Your task to perform on an android device: turn on translation in the chrome app Image 0: 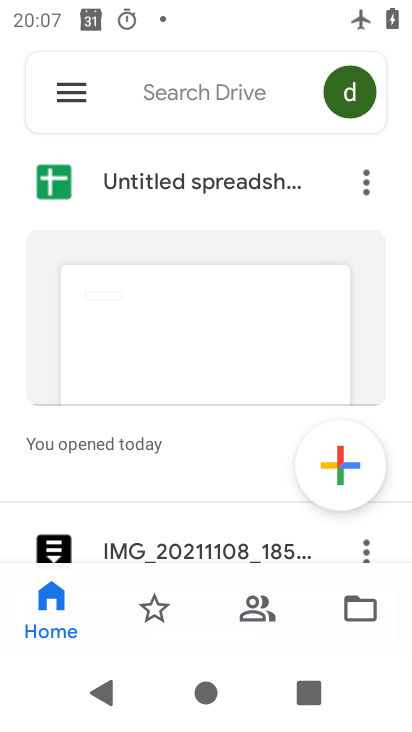
Step 0: press home button
Your task to perform on an android device: turn on translation in the chrome app Image 1: 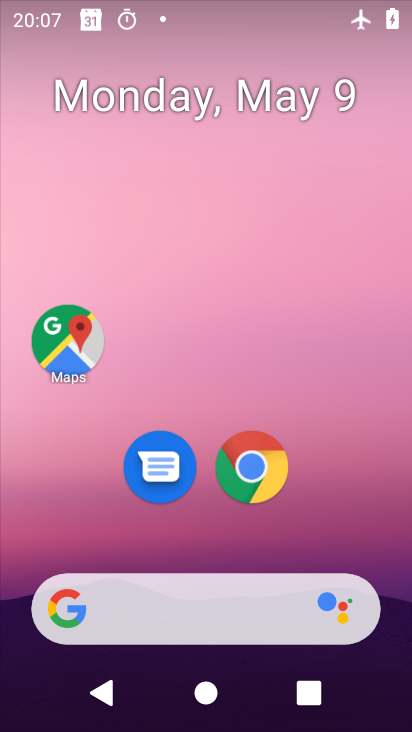
Step 1: click (252, 466)
Your task to perform on an android device: turn on translation in the chrome app Image 2: 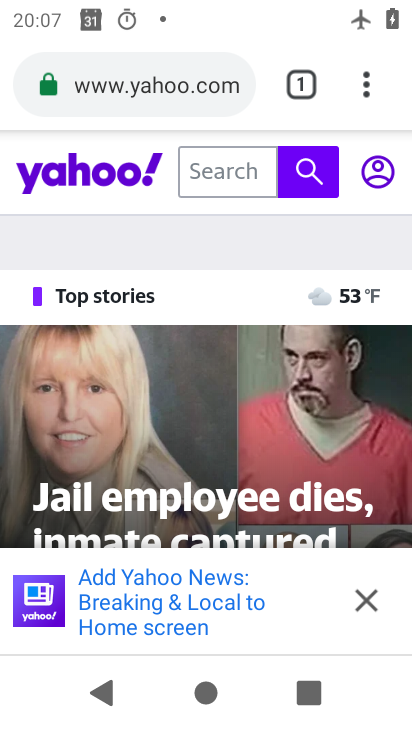
Step 2: click (369, 86)
Your task to perform on an android device: turn on translation in the chrome app Image 3: 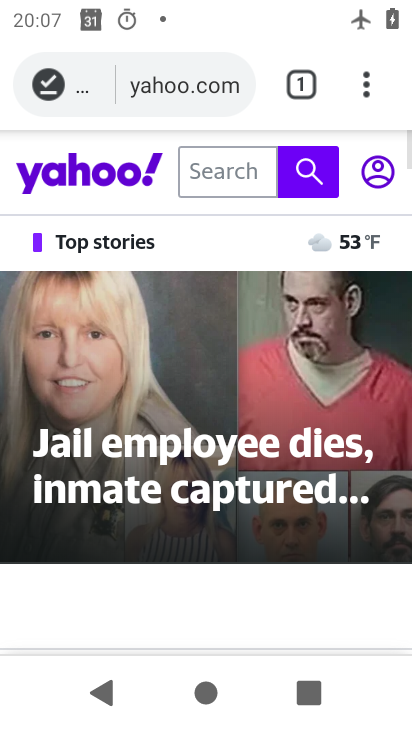
Step 3: drag from (366, 76) to (161, 531)
Your task to perform on an android device: turn on translation in the chrome app Image 4: 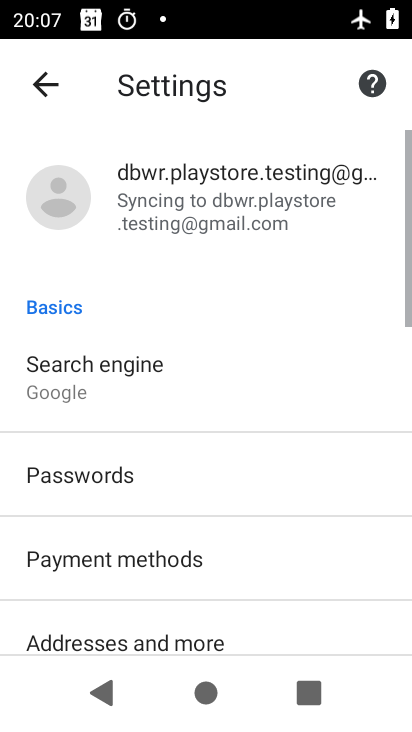
Step 4: drag from (199, 540) to (310, 181)
Your task to perform on an android device: turn on translation in the chrome app Image 5: 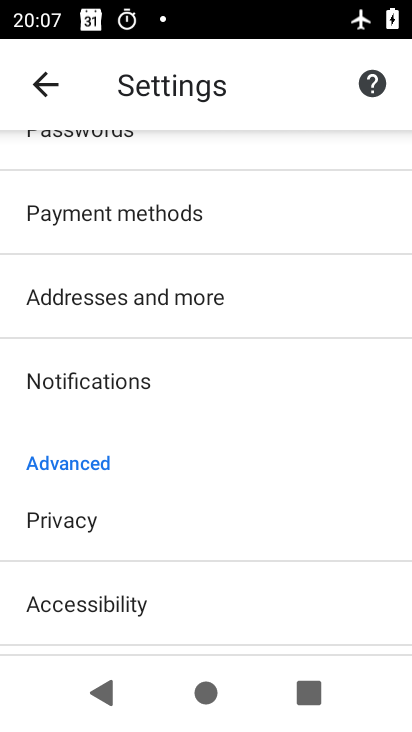
Step 5: drag from (228, 562) to (248, 243)
Your task to perform on an android device: turn on translation in the chrome app Image 6: 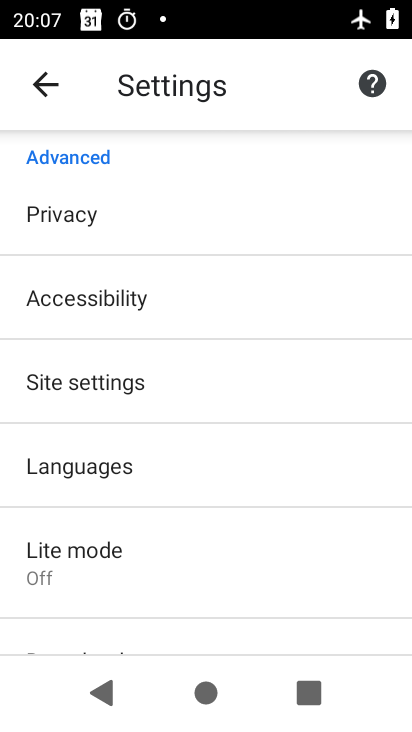
Step 6: click (105, 472)
Your task to perform on an android device: turn on translation in the chrome app Image 7: 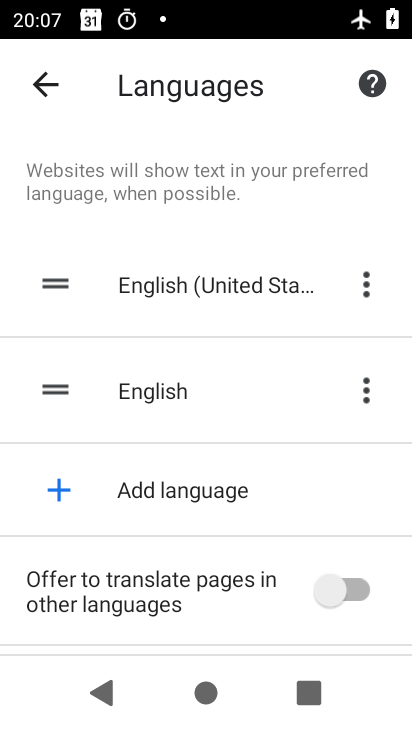
Step 7: click (360, 595)
Your task to perform on an android device: turn on translation in the chrome app Image 8: 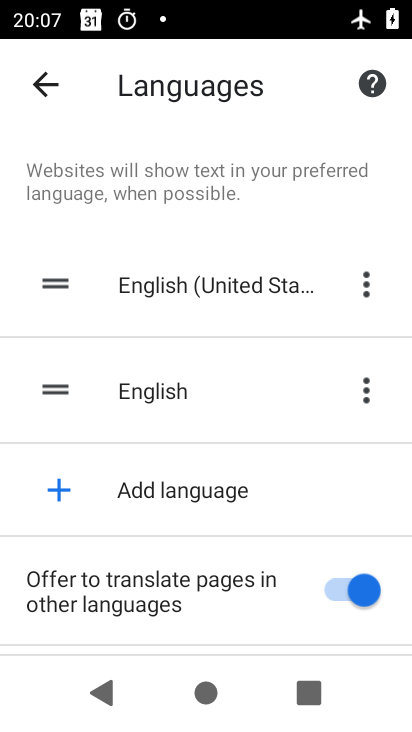
Step 8: task complete